Your task to perform on an android device: uninstall "Fetch Rewards" Image 0: 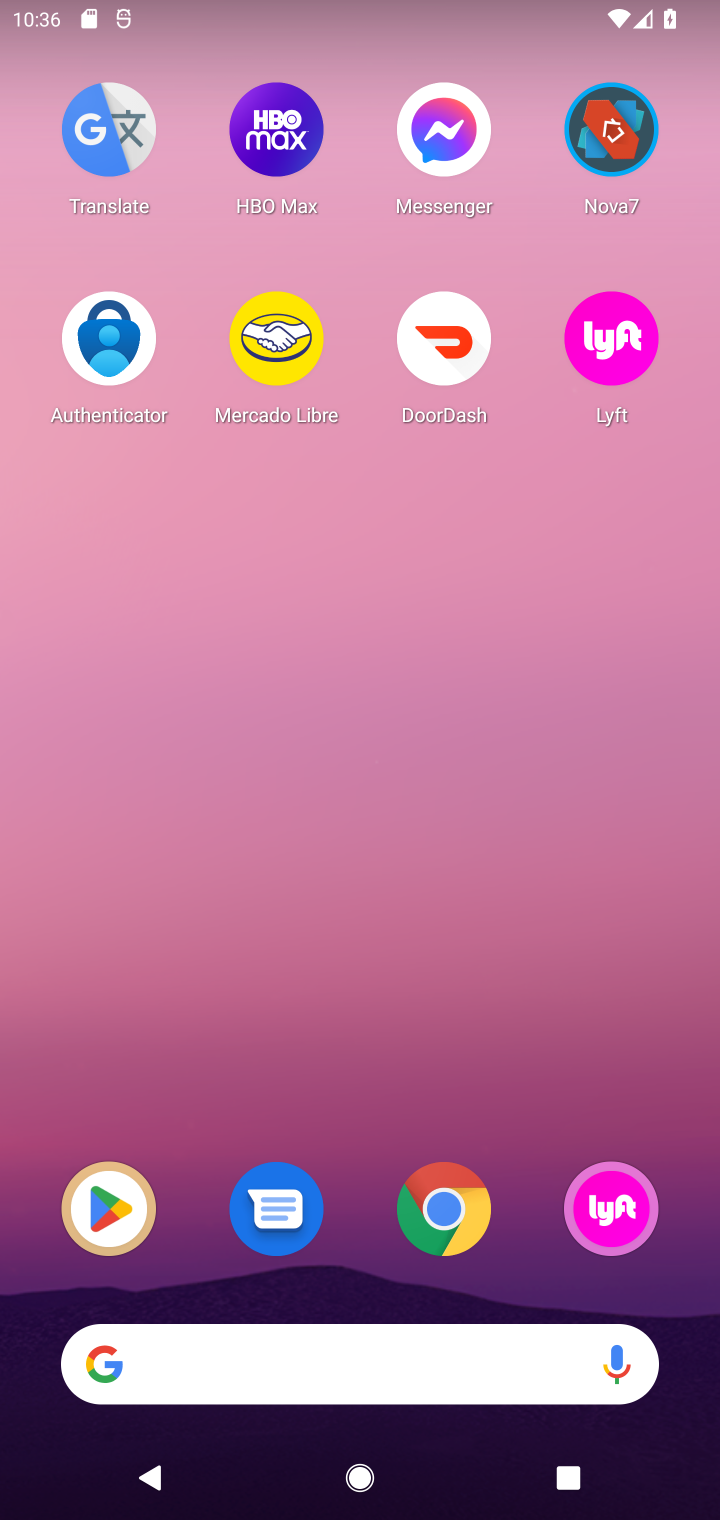
Step 0: drag from (520, 1117) to (484, 227)
Your task to perform on an android device: uninstall "Fetch Rewards" Image 1: 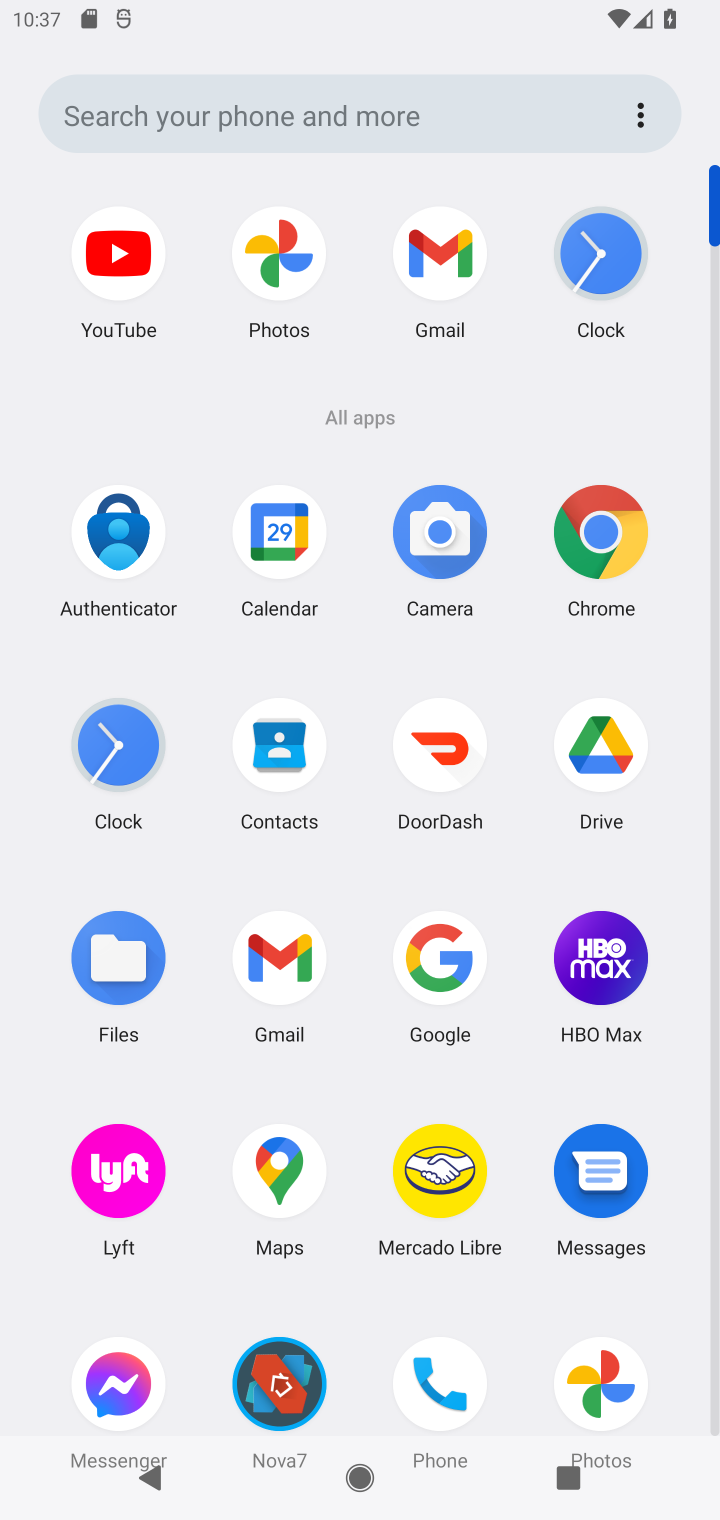
Step 1: drag from (500, 1001) to (517, 340)
Your task to perform on an android device: uninstall "Fetch Rewards" Image 2: 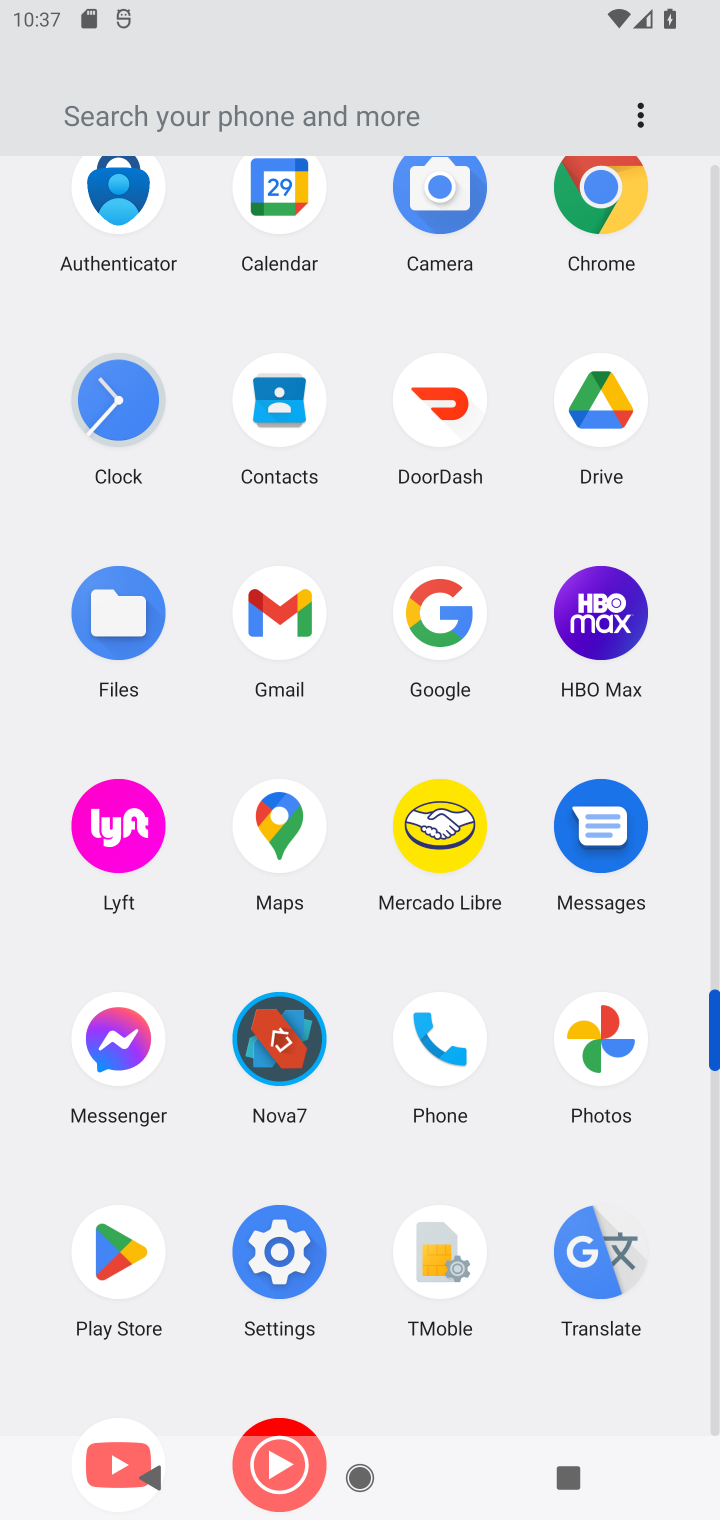
Step 2: click (121, 1248)
Your task to perform on an android device: uninstall "Fetch Rewards" Image 3: 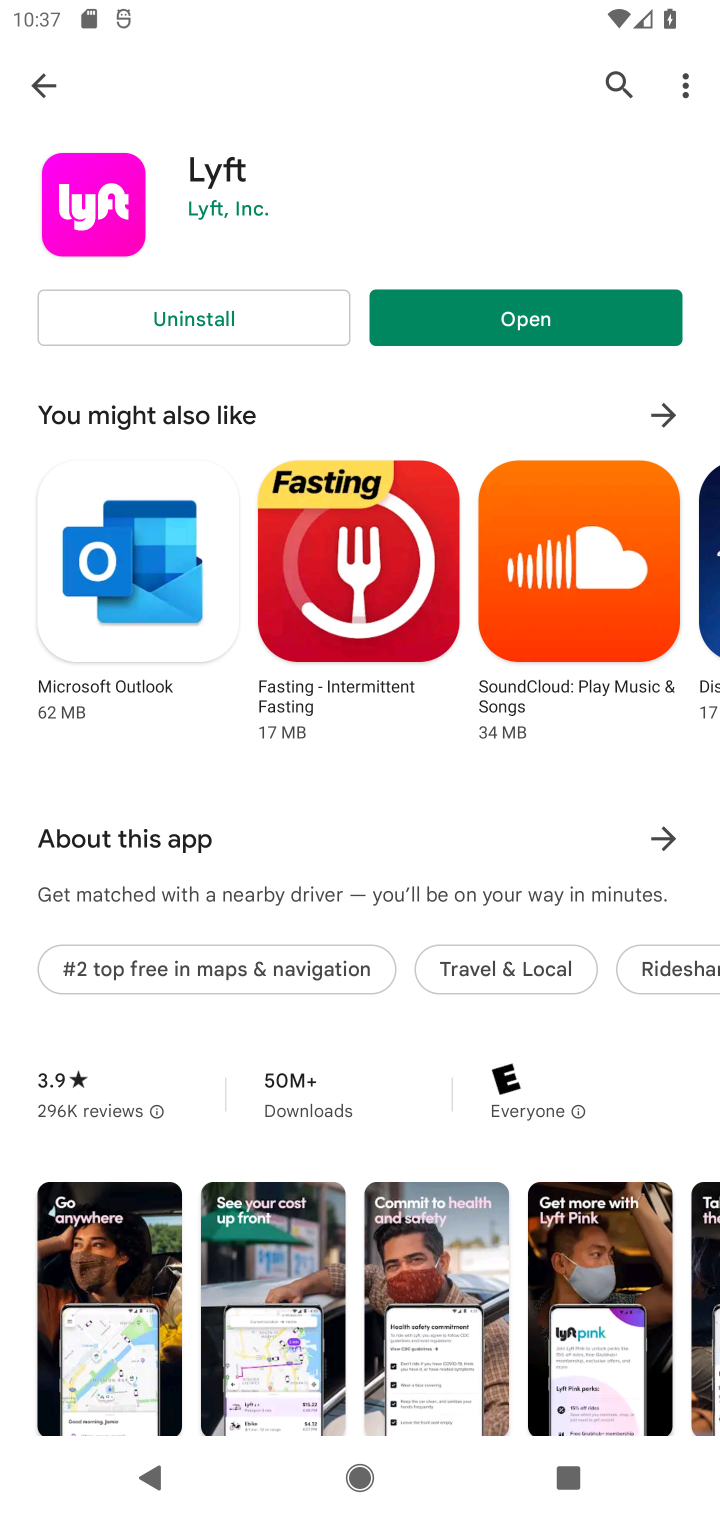
Step 3: click (633, 80)
Your task to perform on an android device: uninstall "Fetch Rewards" Image 4: 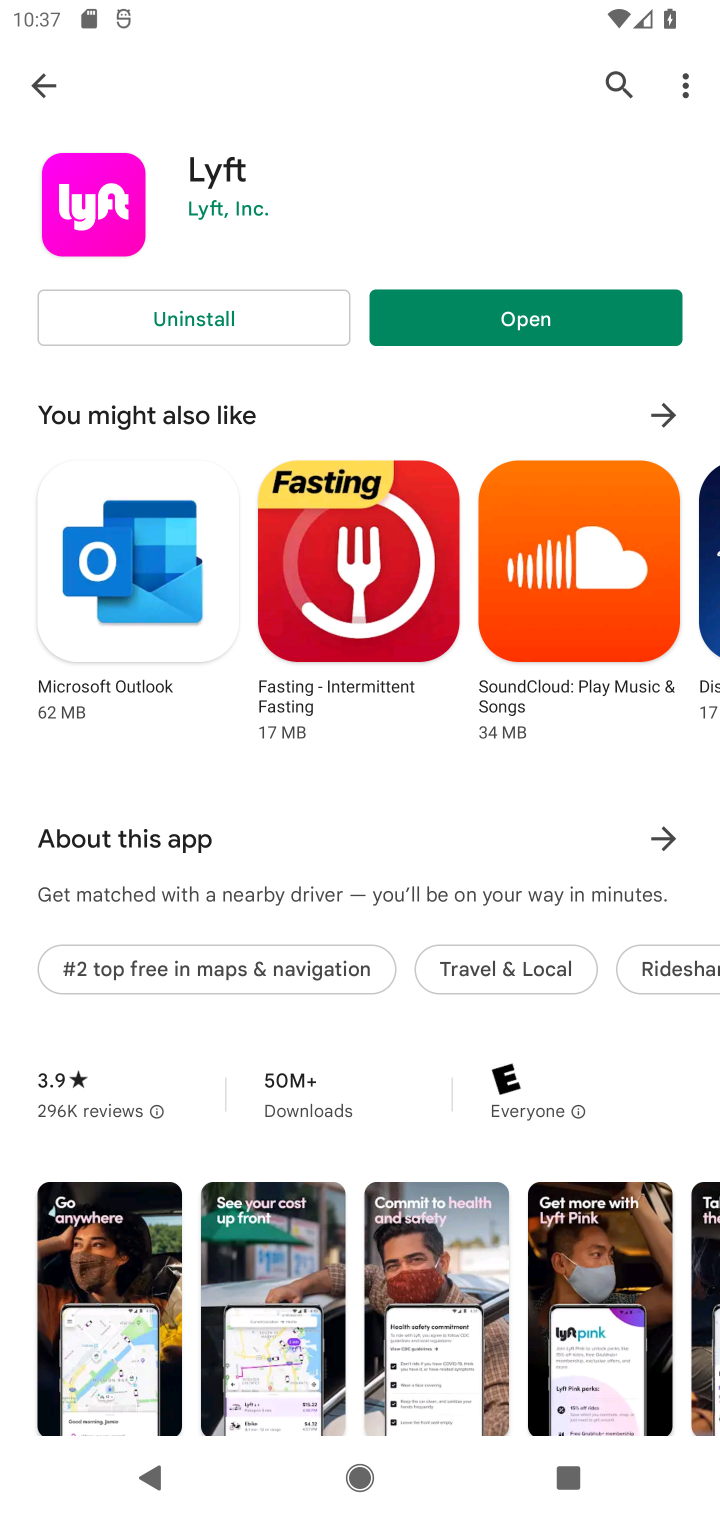
Step 4: click (30, 76)
Your task to perform on an android device: uninstall "Fetch Rewards" Image 5: 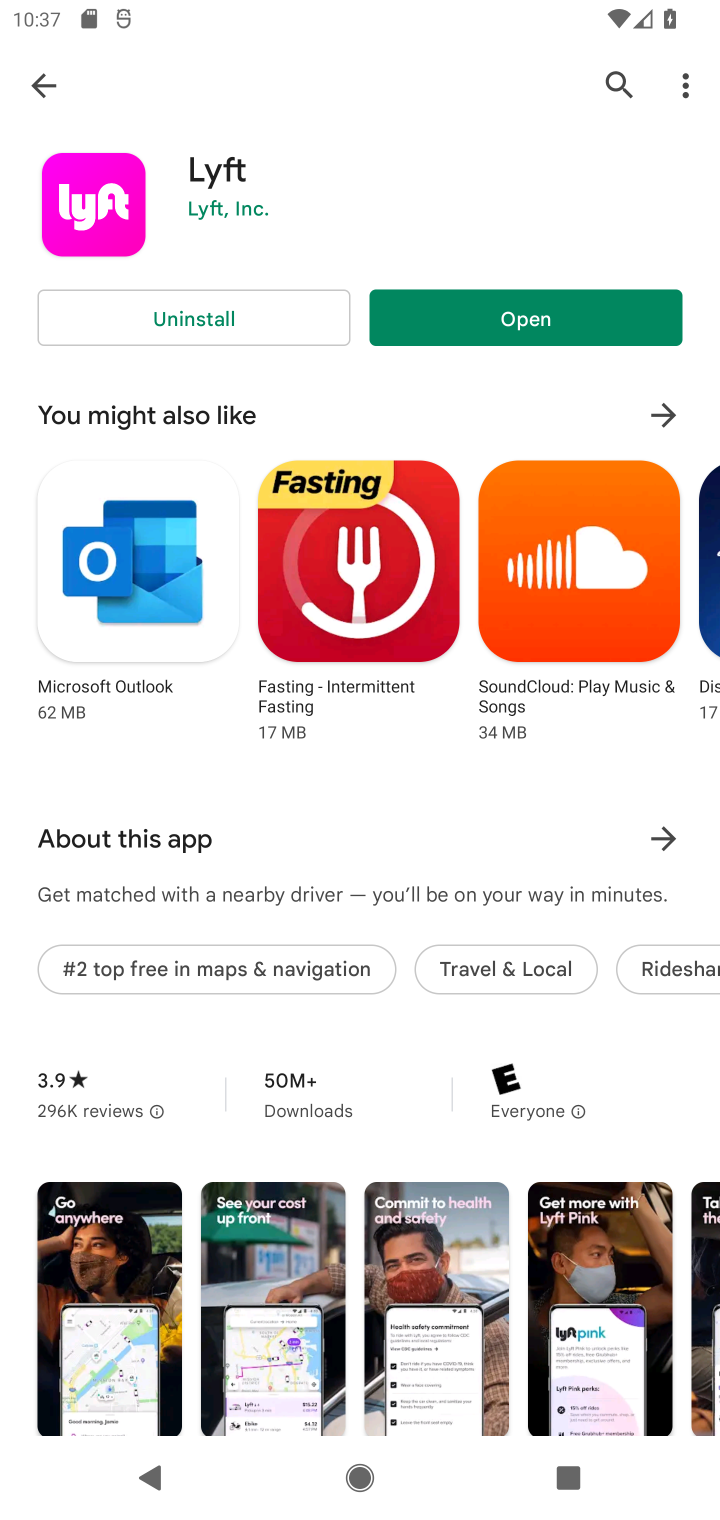
Step 5: press back button
Your task to perform on an android device: uninstall "Fetch Rewards" Image 6: 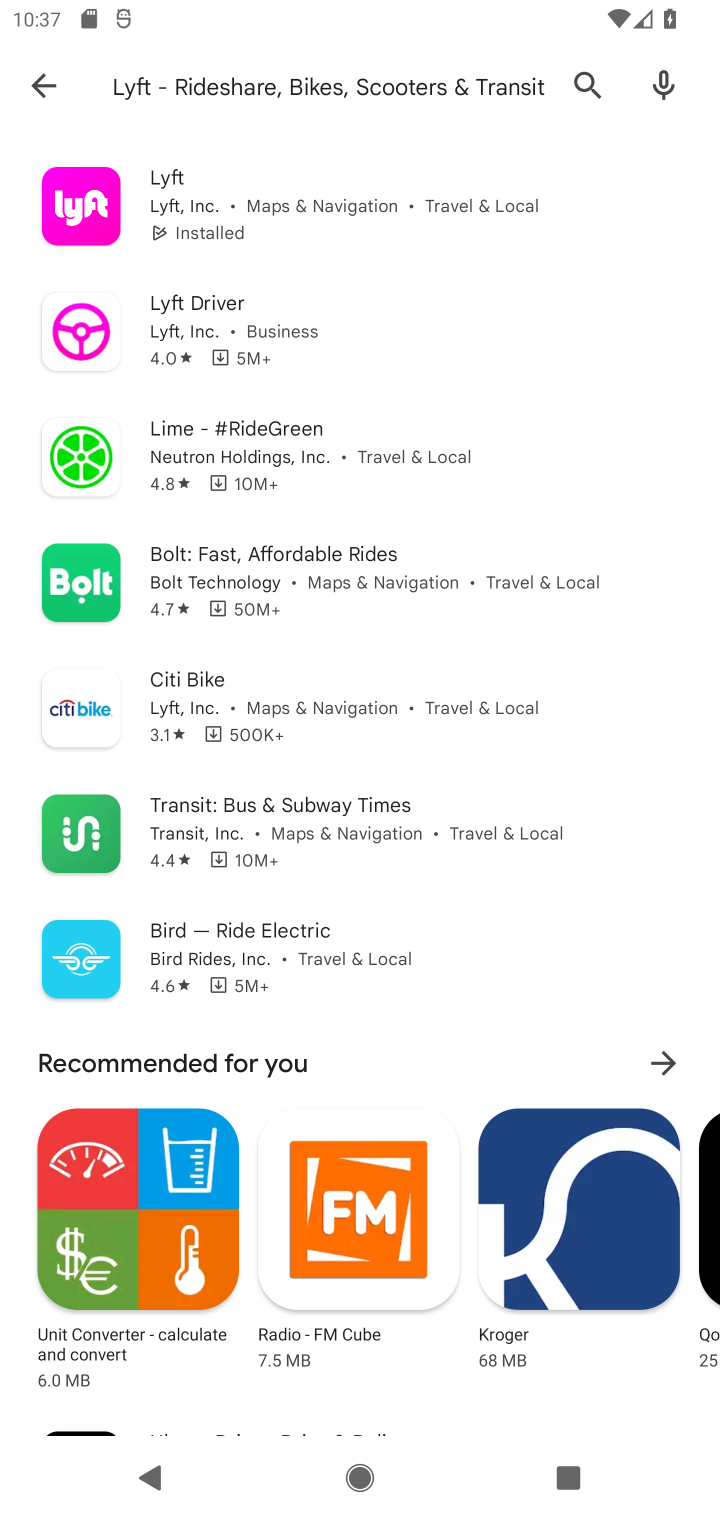
Step 6: click (593, 73)
Your task to perform on an android device: uninstall "Fetch Rewards" Image 7: 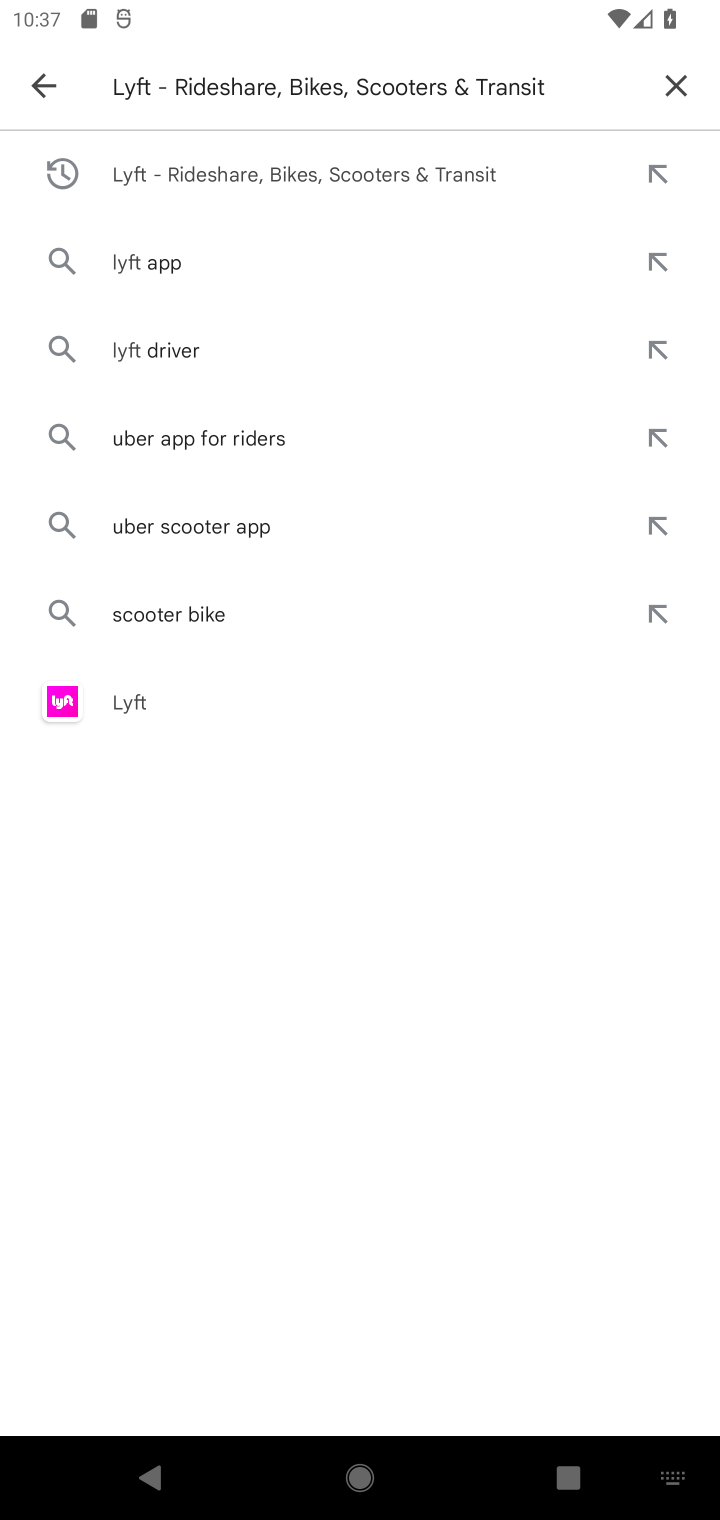
Step 7: click (661, 74)
Your task to perform on an android device: uninstall "Fetch Rewards" Image 8: 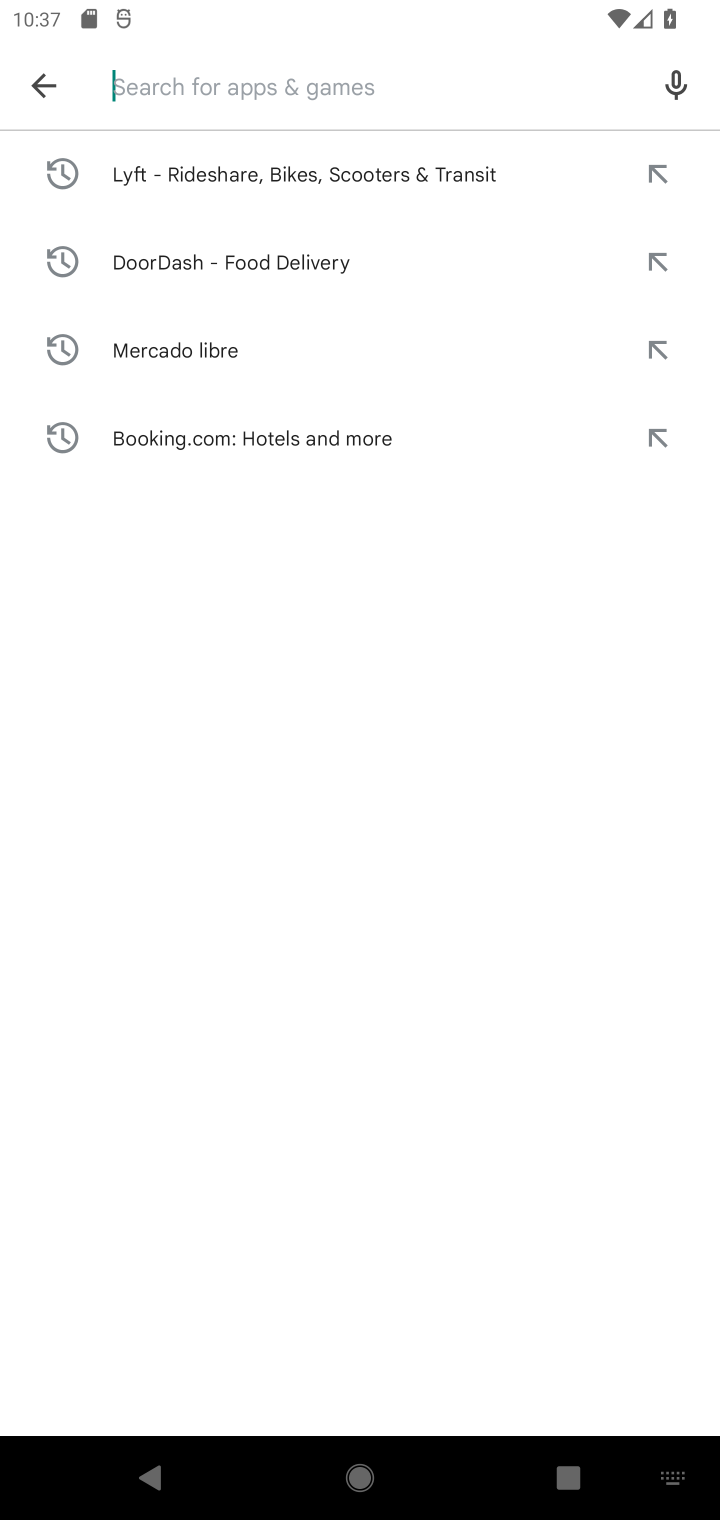
Step 8: type "Fetch Rewards"
Your task to perform on an android device: uninstall "Fetch Rewards" Image 9: 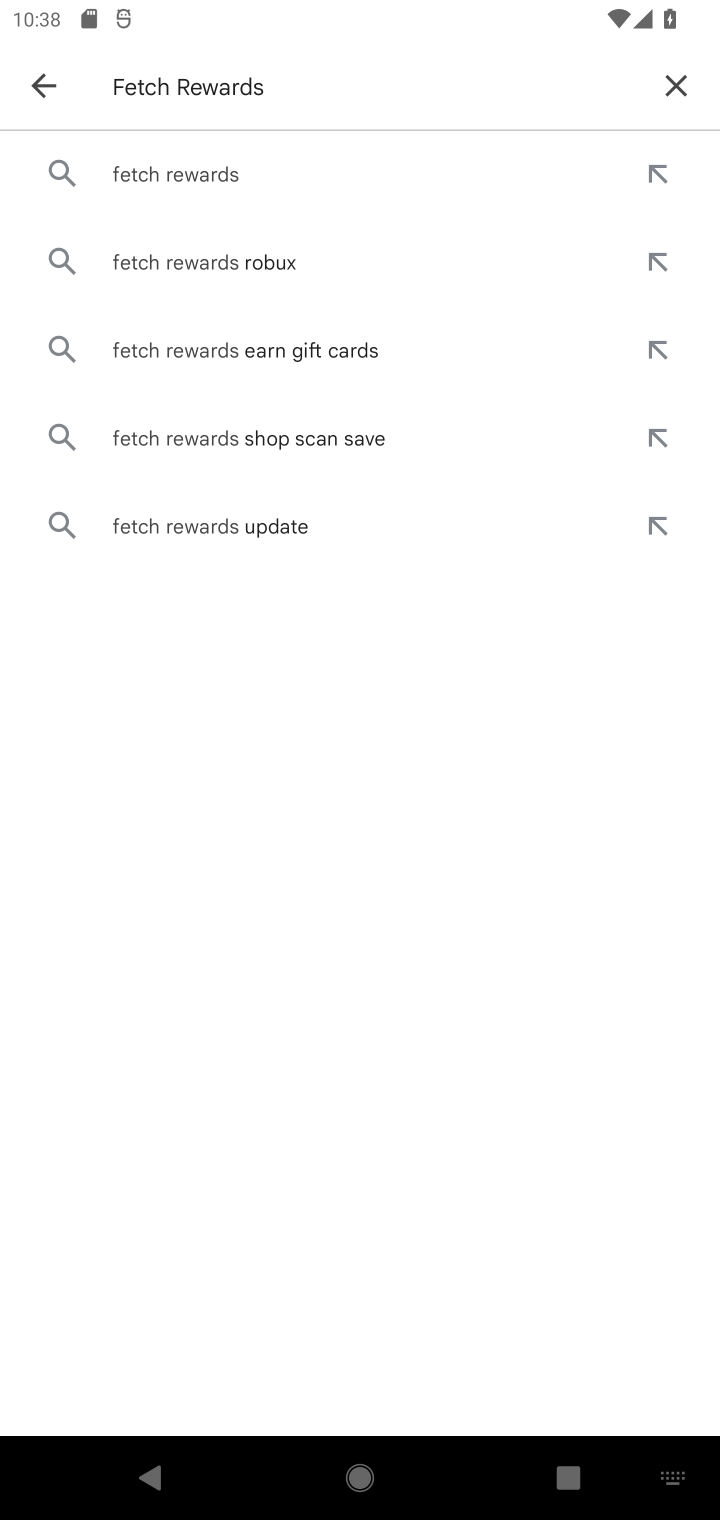
Step 9: press enter
Your task to perform on an android device: uninstall "Fetch Rewards" Image 10: 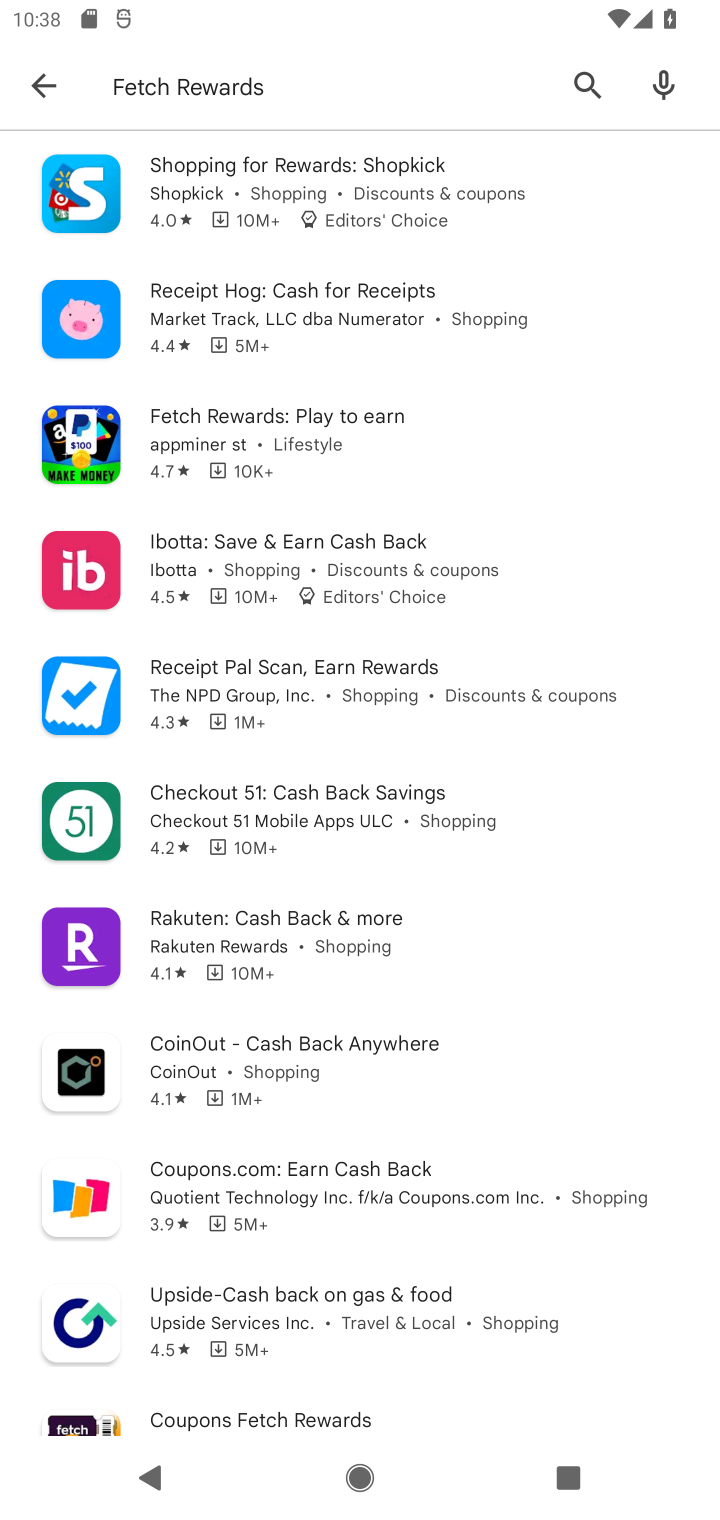
Step 10: task complete